Your task to perform on an android device: Show me the alarms in the clock app Image 0: 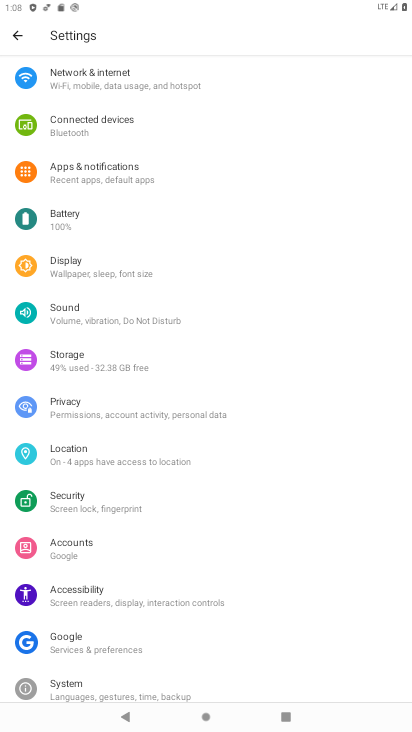
Step 0: press home button
Your task to perform on an android device: Show me the alarms in the clock app Image 1: 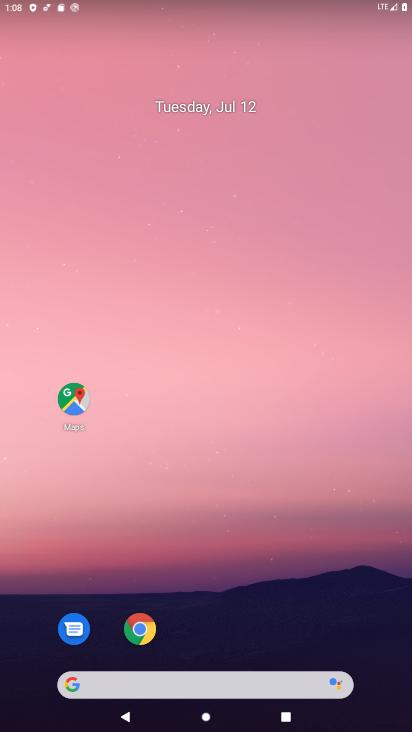
Step 1: drag from (324, 700) to (291, 0)
Your task to perform on an android device: Show me the alarms in the clock app Image 2: 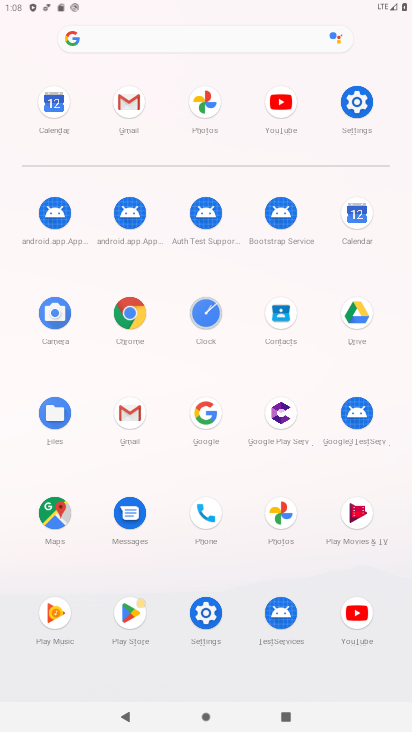
Step 2: click (207, 320)
Your task to perform on an android device: Show me the alarms in the clock app Image 3: 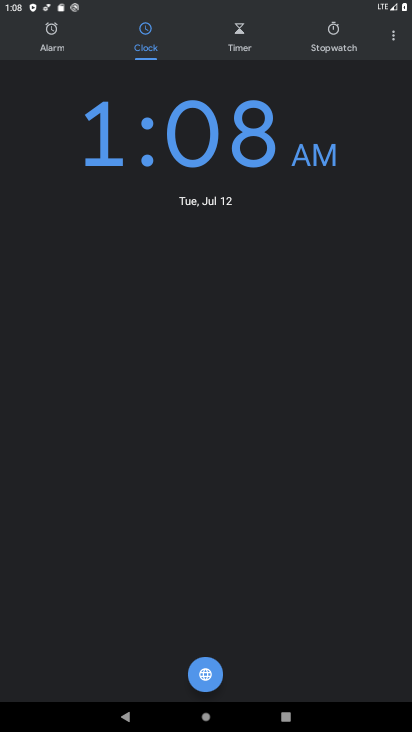
Step 3: click (54, 38)
Your task to perform on an android device: Show me the alarms in the clock app Image 4: 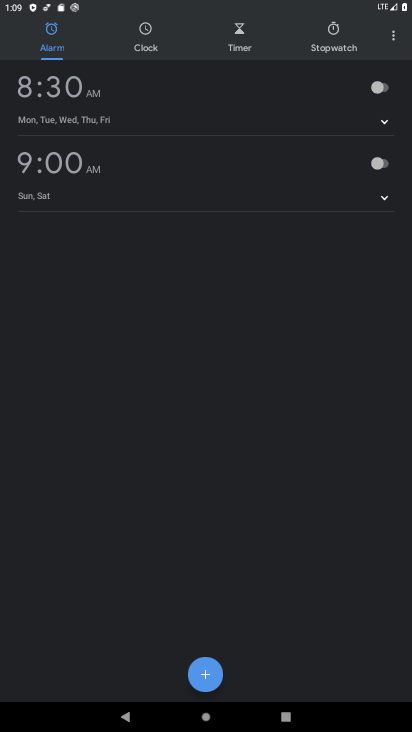
Step 4: task complete